Your task to perform on an android device: Go to calendar. Show me events next week Image 0: 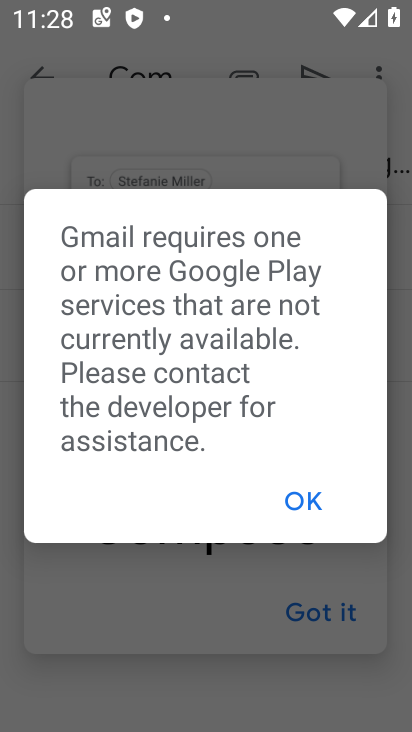
Step 0: press home button
Your task to perform on an android device: Go to calendar. Show me events next week Image 1: 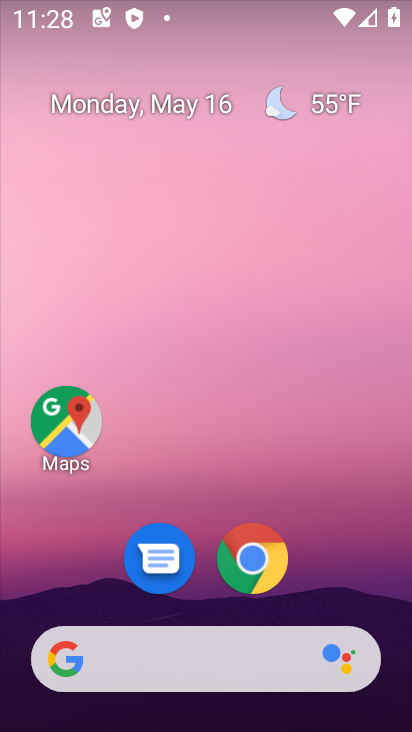
Step 1: drag from (201, 508) to (217, 133)
Your task to perform on an android device: Go to calendar. Show me events next week Image 2: 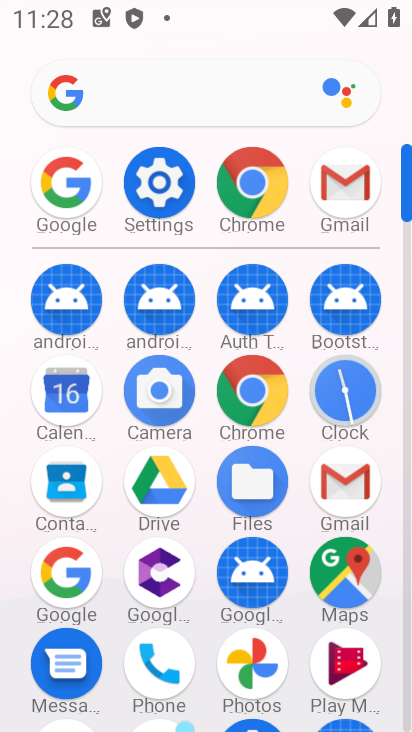
Step 2: click (67, 394)
Your task to perform on an android device: Go to calendar. Show me events next week Image 3: 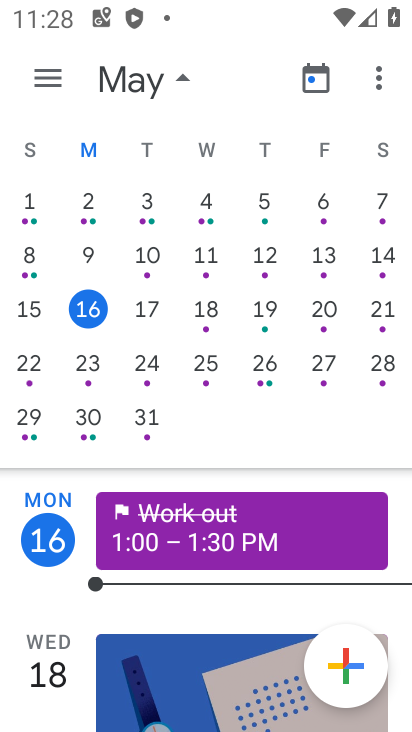
Step 3: click (152, 365)
Your task to perform on an android device: Go to calendar. Show me events next week Image 4: 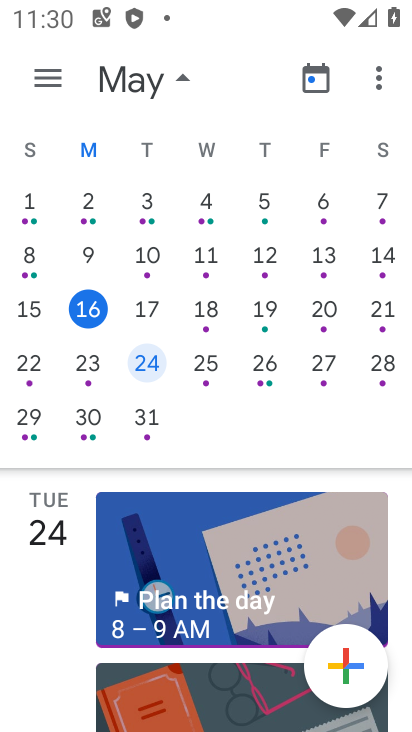
Step 4: task complete